Your task to perform on an android device: turn on showing notifications on the lock screen Image 0: 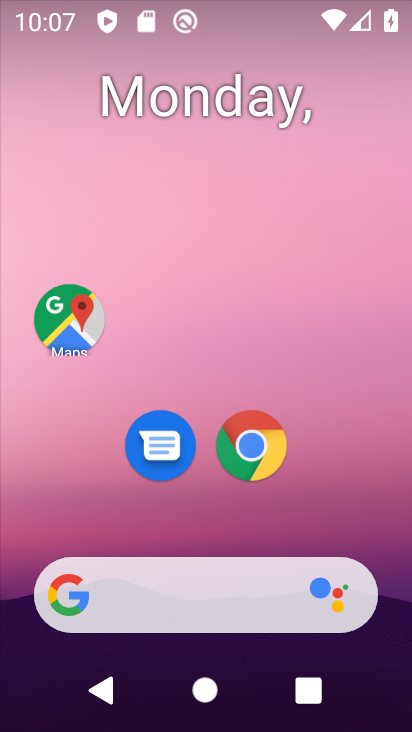
Step 0: drag from (272, 619) to (303, 162)
Your task to perform on an android device: turn on showing notifications on the lock screen Image 1: 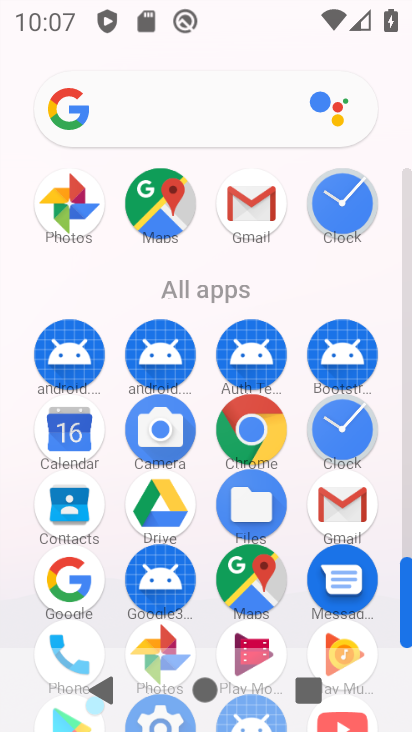
Step 1: drag from (106, 554) to (134, 337)
Your task to perform on an android device: turn on showing notifications on the lock screen Image 2: 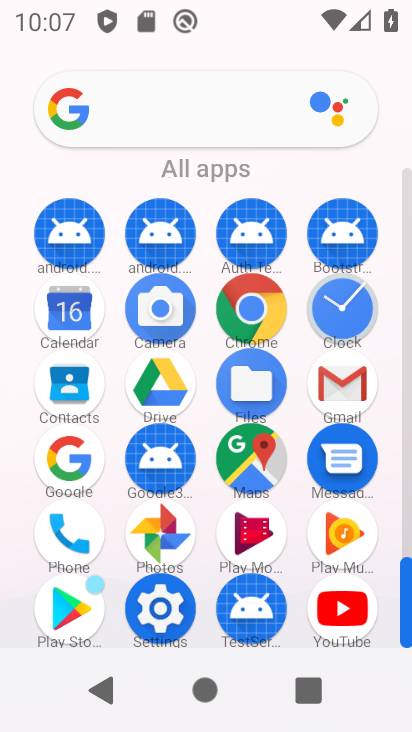
Step 2: click (155, 585)
Your task to perform on an android device: turn on showing notifications on the lock screen Image 3: 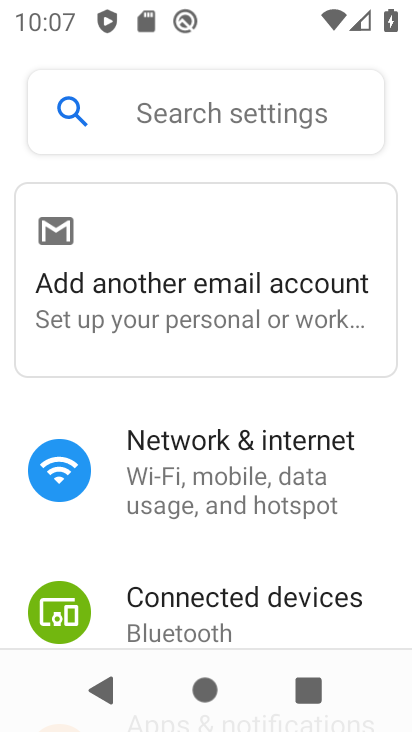
Step 3: click (177, 104)
Your task to perform on an android device: turn on showing notifications on the lock screen Image 4: 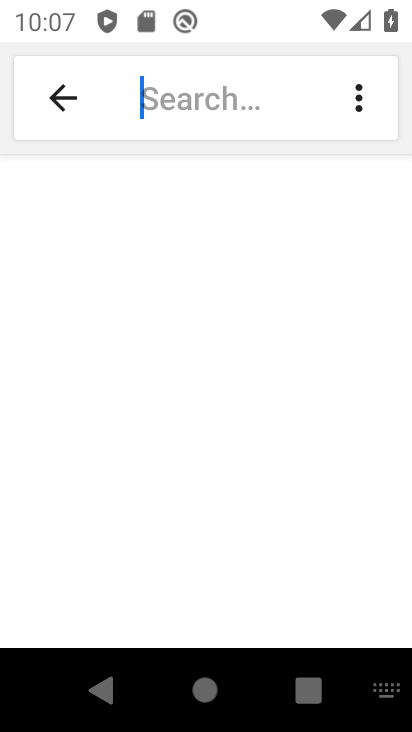
Step 4: click (384, 679)
Your task to perform on an android device: turn on showing notifications on the lock screen Image 5: 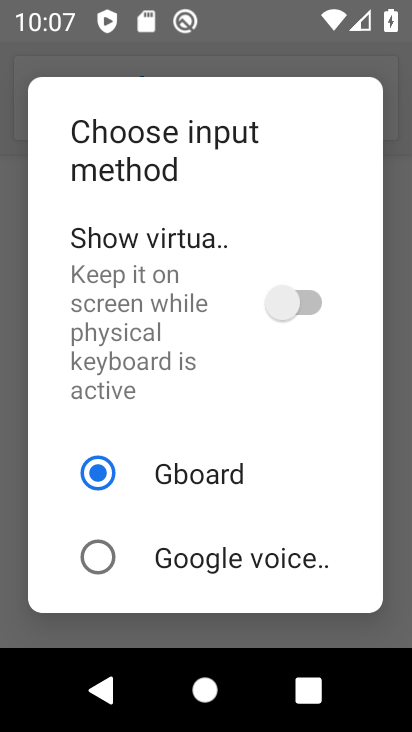
Step 5: click (292, 314)
Your task to perform on an android device: turn on showing notifications on the lock screen Image 6: 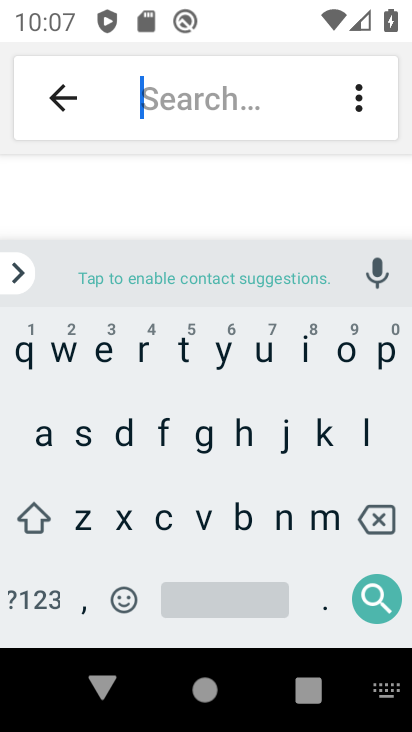
Step 6: click (281, 523)
Your task to perform on an android device: turn on showing notifications on the lock screen Image 7: 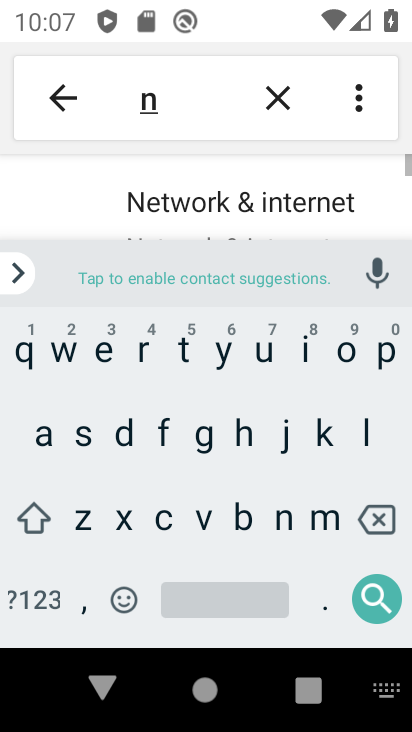
Step 7: click (347, 349)
Your task to perform on an android device: turn on showing notifications on the lock screen Image 8: 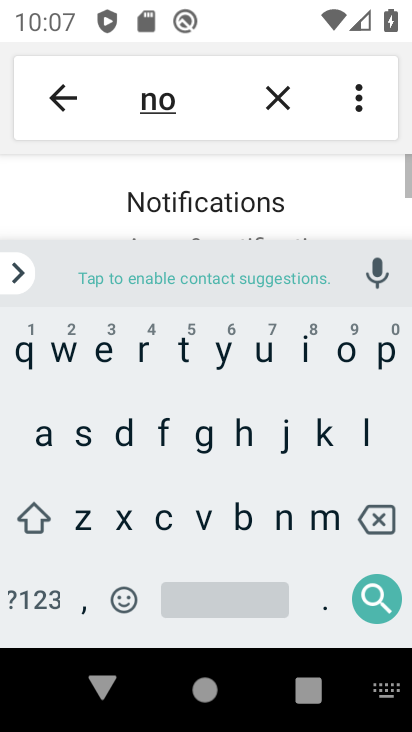
Step 8: click (230, 212)
Your task to perform on an android device: turn on showing notifications on the lock screen Image 9: 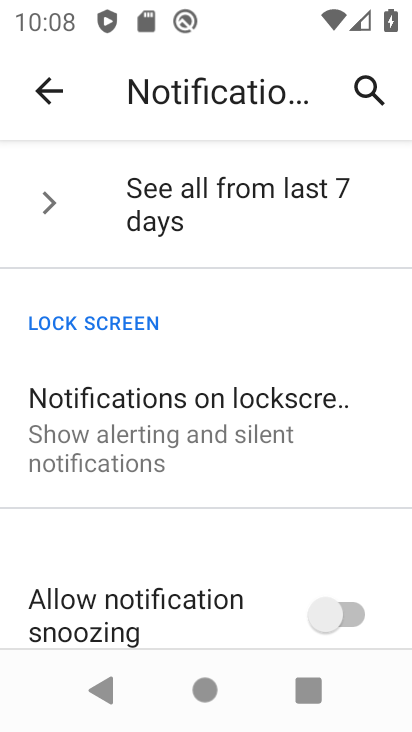
Step 9: click (240, 400)
Your task to perform on an android device: turn on showing notifications on the lock screen Image 10: 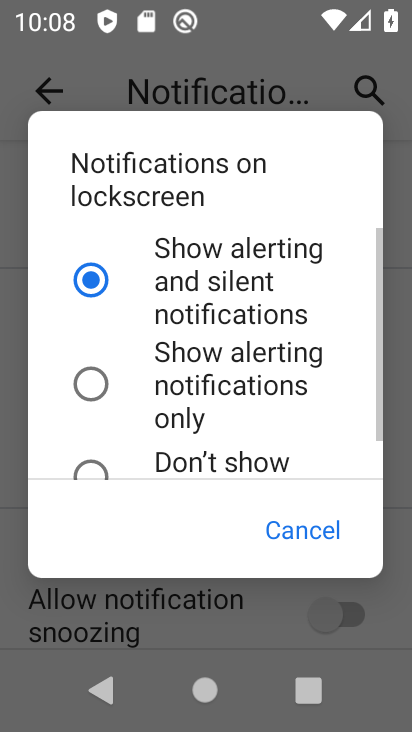
Step 10: task complete